Your task to perform on an android device: toggle notification dots Image 0: 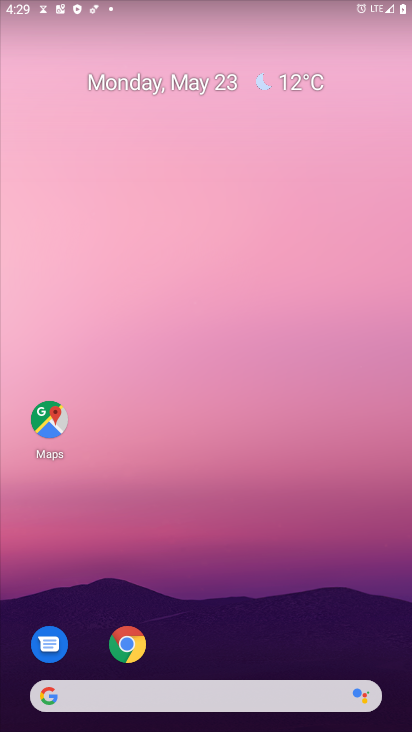
Step 0: drag from (252, 652) to (192, 149)
Your task to perform on an android device: toggle notification dots Image 1: 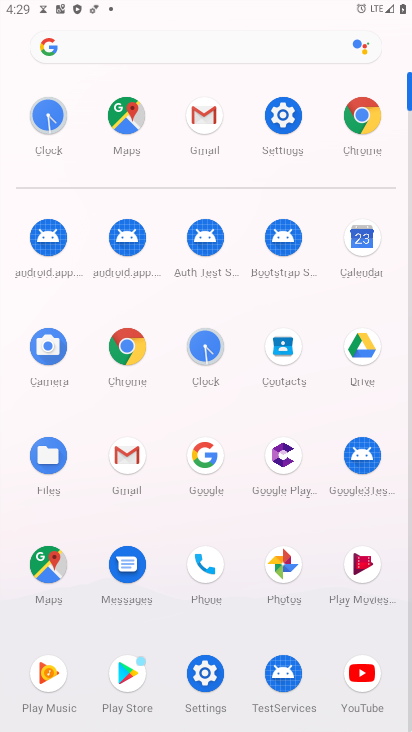
Step 1: click (283, 122)
Your task to perform on an android device: toggle notification dots Image 2: 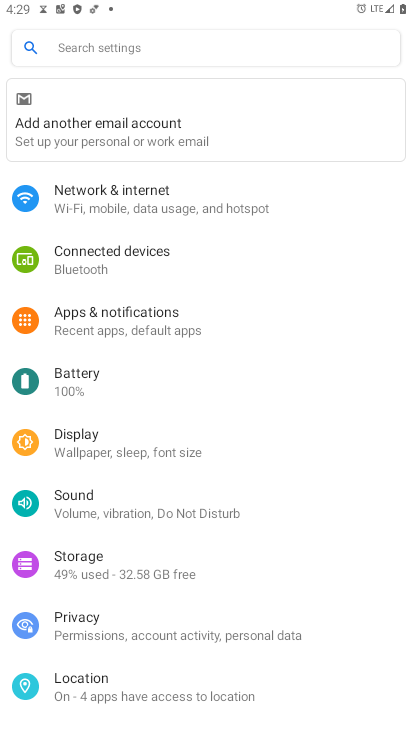
Step 2: click (171, 307)
Your task to perform on an android device: toggle notification dots Image 3: 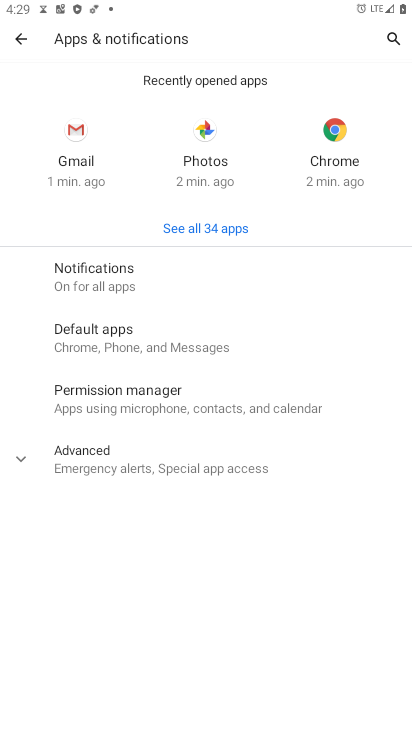
Step 3: click (162, 272)
Your task to perform on an android device: toggle notification dots Image 4: 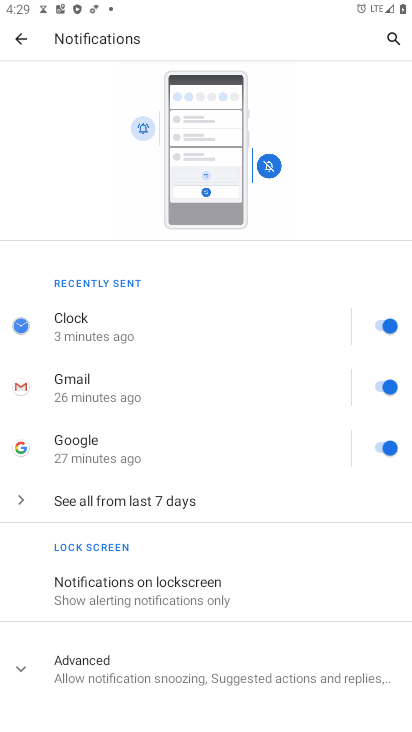
Step 4: drag from (261, 664) to (227, 376)
Your task to perform on an android device: toggle notification dots Image 5: 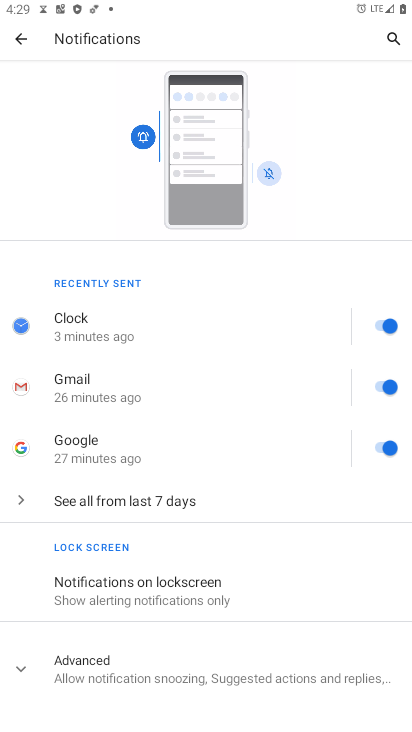
Step 5: click (250, 672)
Your task to perform on an android device: toggle notification dots Image 6: 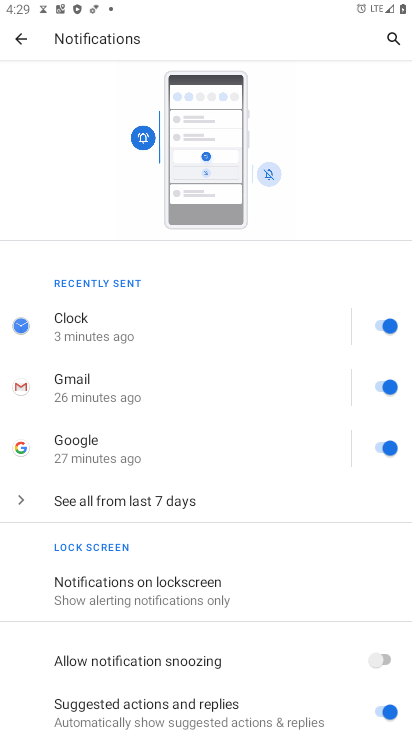
Step 6: drag from (250, 672) to (193, 350)
Your task to perform on an android device: toggle notification dots Image 7: 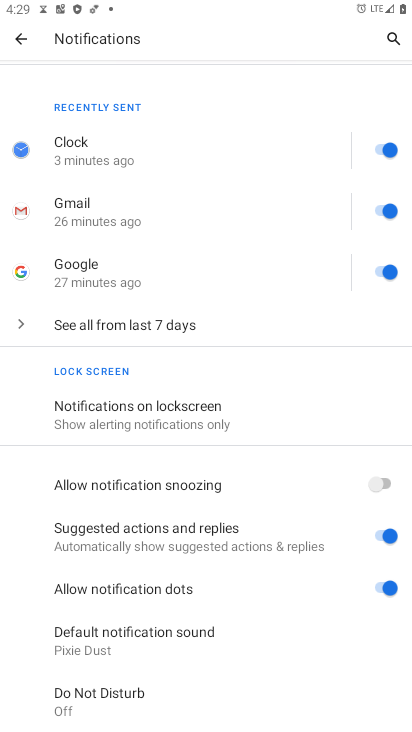
Step 7: click (387, 583)
Your task to perform on an android device: toggle notification dots Image 8: 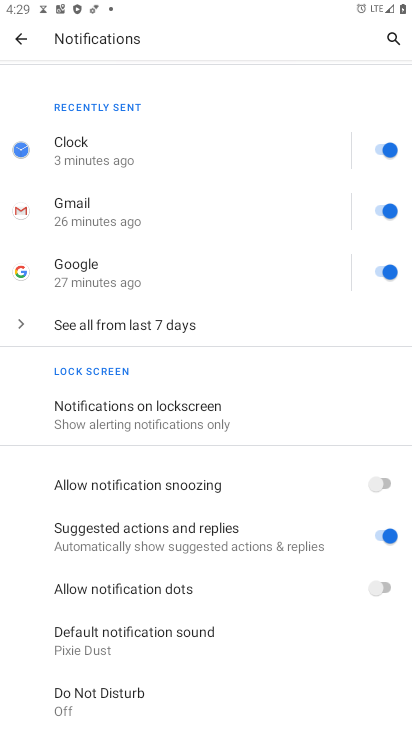
Step 8: task complete